Your task to perform on an android device: What's the weather going to be tomorrow? Image 0: 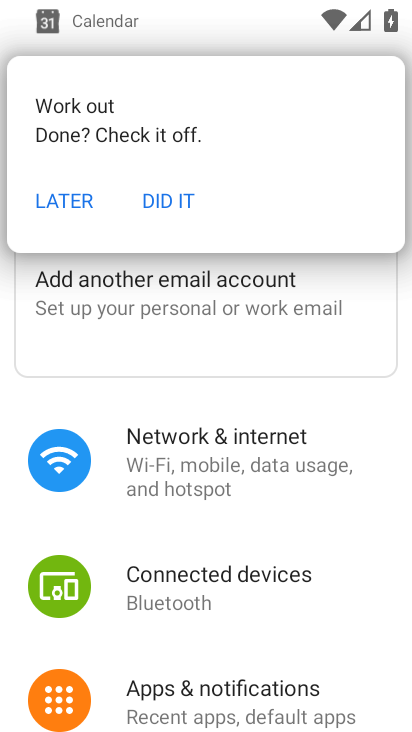
Step 0: press home button
Your task to perform on an android device: What's the weather going to be tomorrow? Image 1: 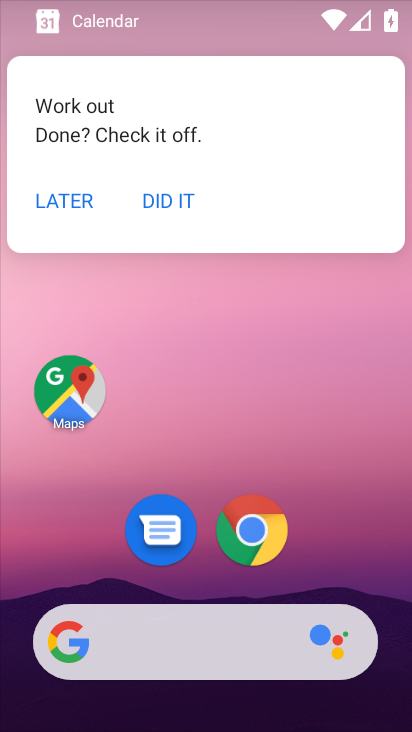
Step 1: click (171, 212)
Your task to perform on an android device: What's the weather going to be tomorrow? Image 2: 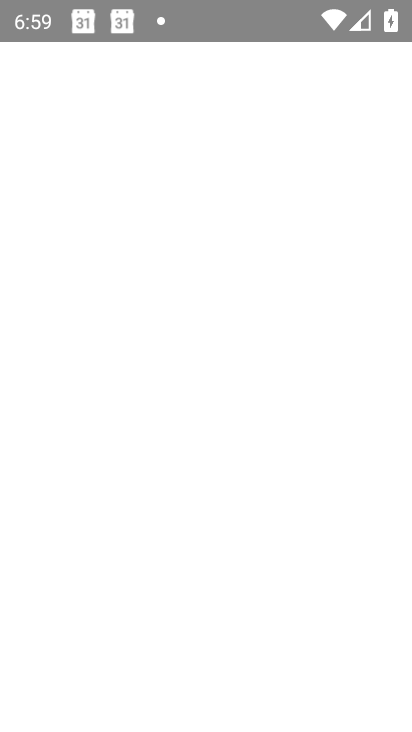
Step 2: drag from (250, 671) to (199, 104)
Your task to perform on an android device: What's the weather going to be tomorrow? Image 3: 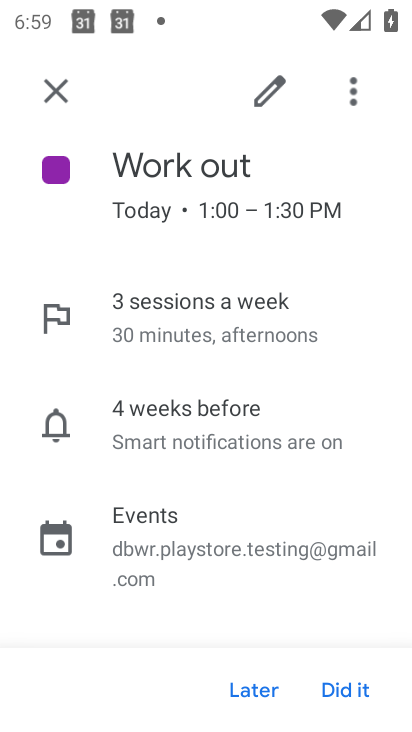
Step 3: press home button
Your task to perform on an android device: What's the weather going to be tomorrow? Image 4: 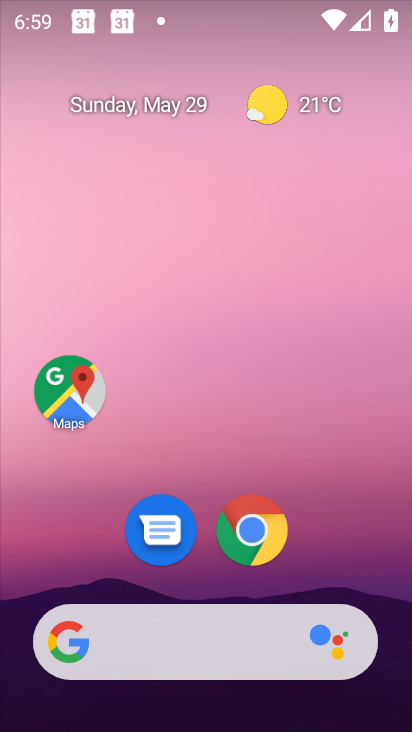
Step 4: drag from (262, 443) to (328, 47)
Your task to perform on an android device: What's the weather going to be tomorrow? Image 5: 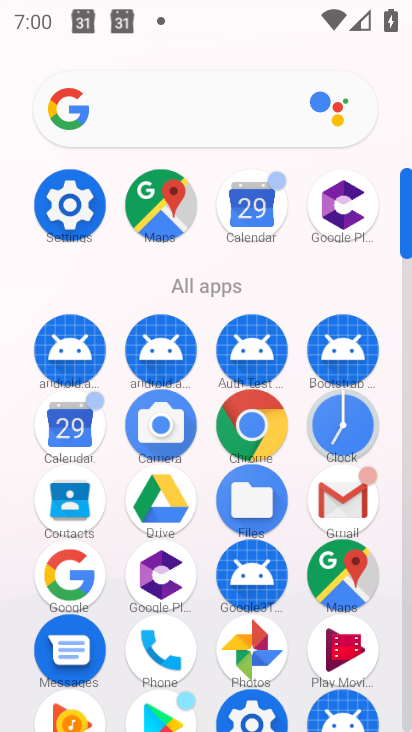
Step 5: click (186, 137)
Your task to perform on an android device: What's the weather going to be tomorrow? Image 6: 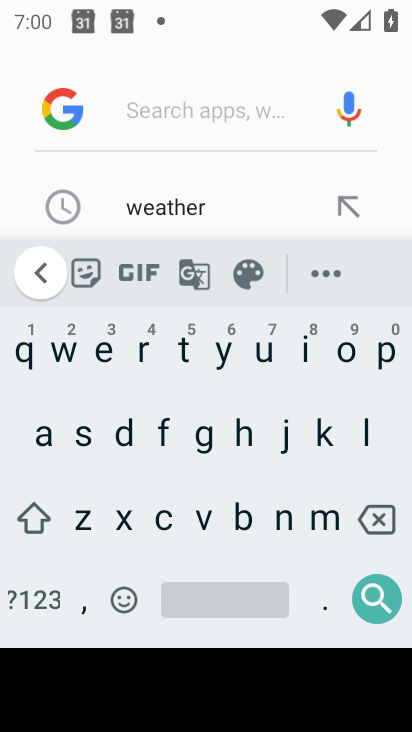
Step 6: click (185, 212)
Your task to perform on an android device: What's the weather going to be tomorrow? Image 7: 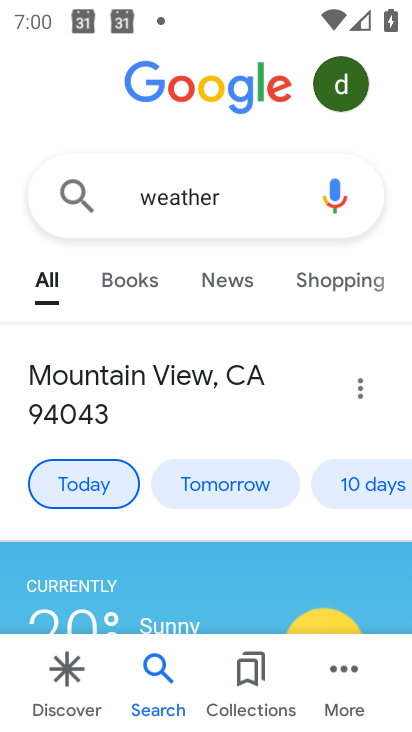
Step 7: drag from (242, 552) to (255, 301)
Your task to perform on an android device: What's the weather going to be tomorrow? Image 8: 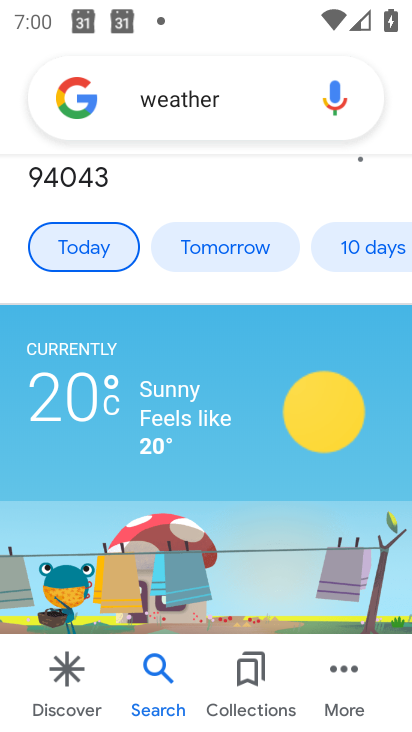
Step 8: click (230, 248)
Your task to perform on an android device: What's the weather going to be tomorrow? Image 9: 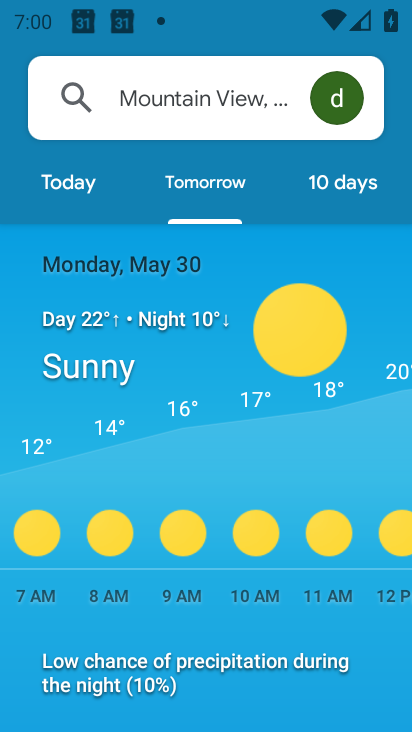
Step 9: task complete